Your task to perform on an android device: read, delete, or share a saved page in the chrome app Image 0: 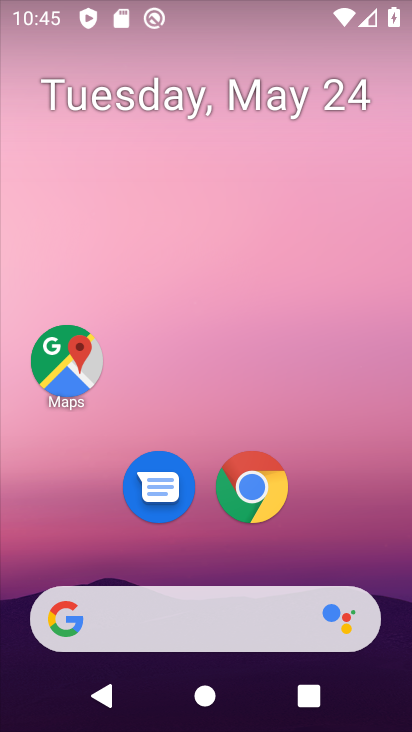
Step 0: click (245, 459)
Your task to perform on an android device: read, delete, or share a saved page in the chrome app Image 1: 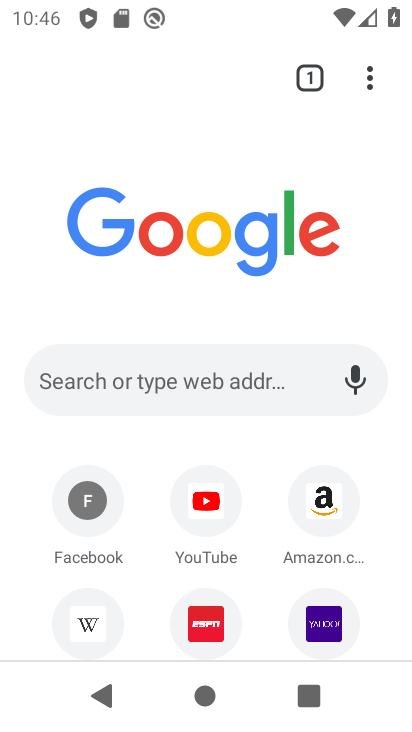
Step 1: drag from (371, 73) to (131, 500)
Your task to perform on an android device: read, delete, or share a saved page in the chrome app Image 2: 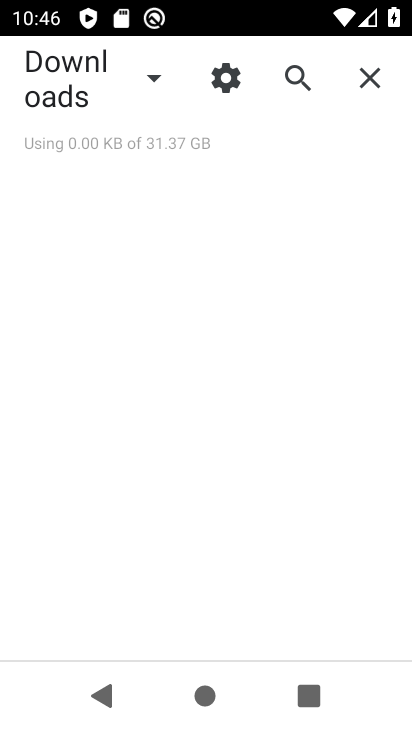
Step 2: click (126, 78)
Your task to perform on an android device: read, delete, or share a saved page in the chrome app Image 3: 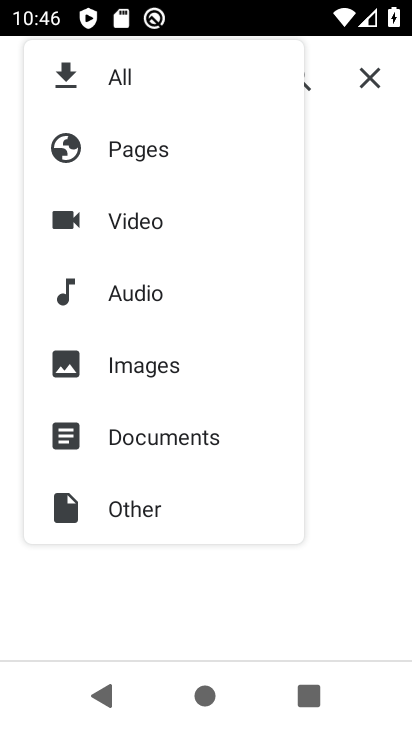
Step 3: click (134, 145)
Your task to perform on an android device: read, delete, or share a saved page in the chrome app Image 4: 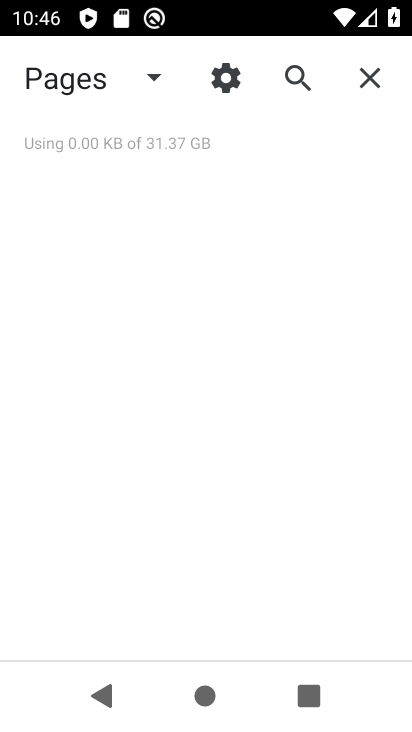
Step 4: task complete